Your task to perform on an android device: open app "Nova Launcher" (install if not already installed) and go to login screen Image 0: 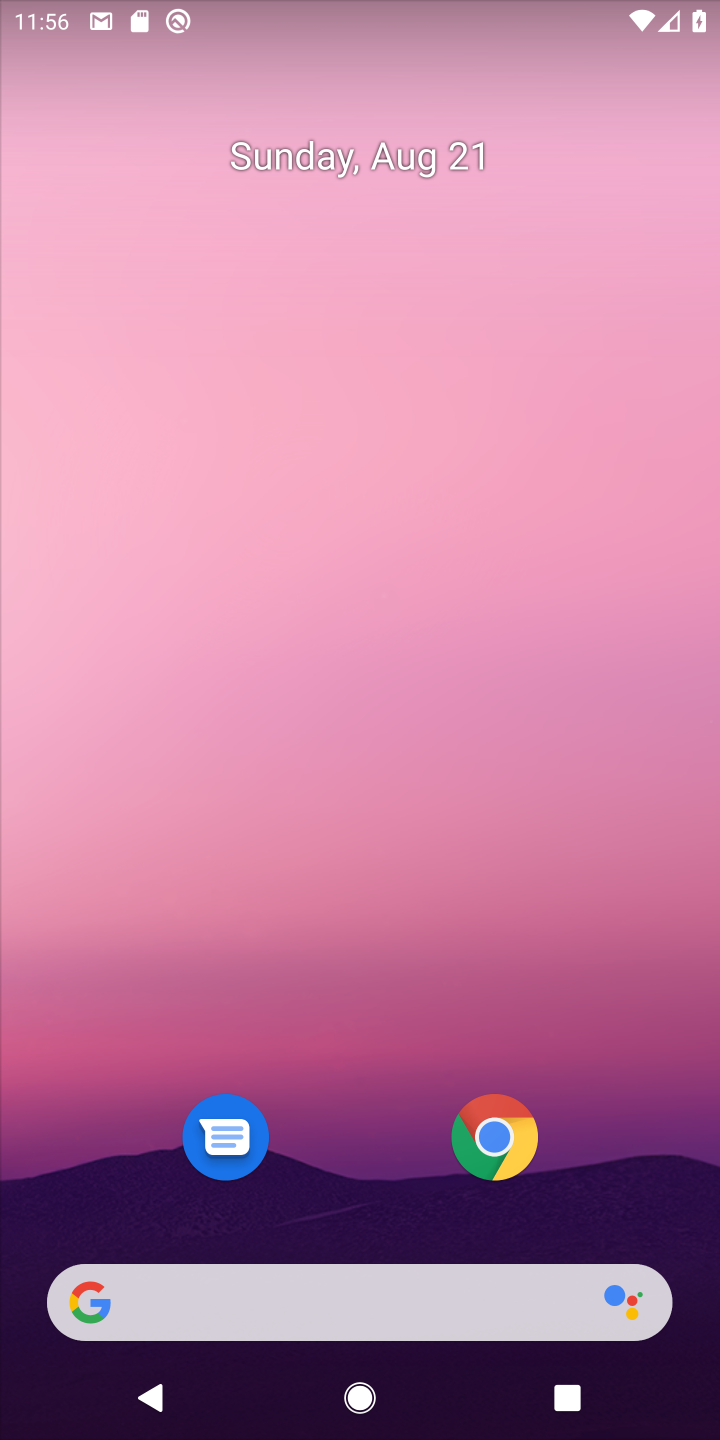
Step 0: drag from (632, 1222) to (560, 142)
Your task to perform on an android device: open app "Nova Launcher" (install if not already installed) and go to login screen Image 1: 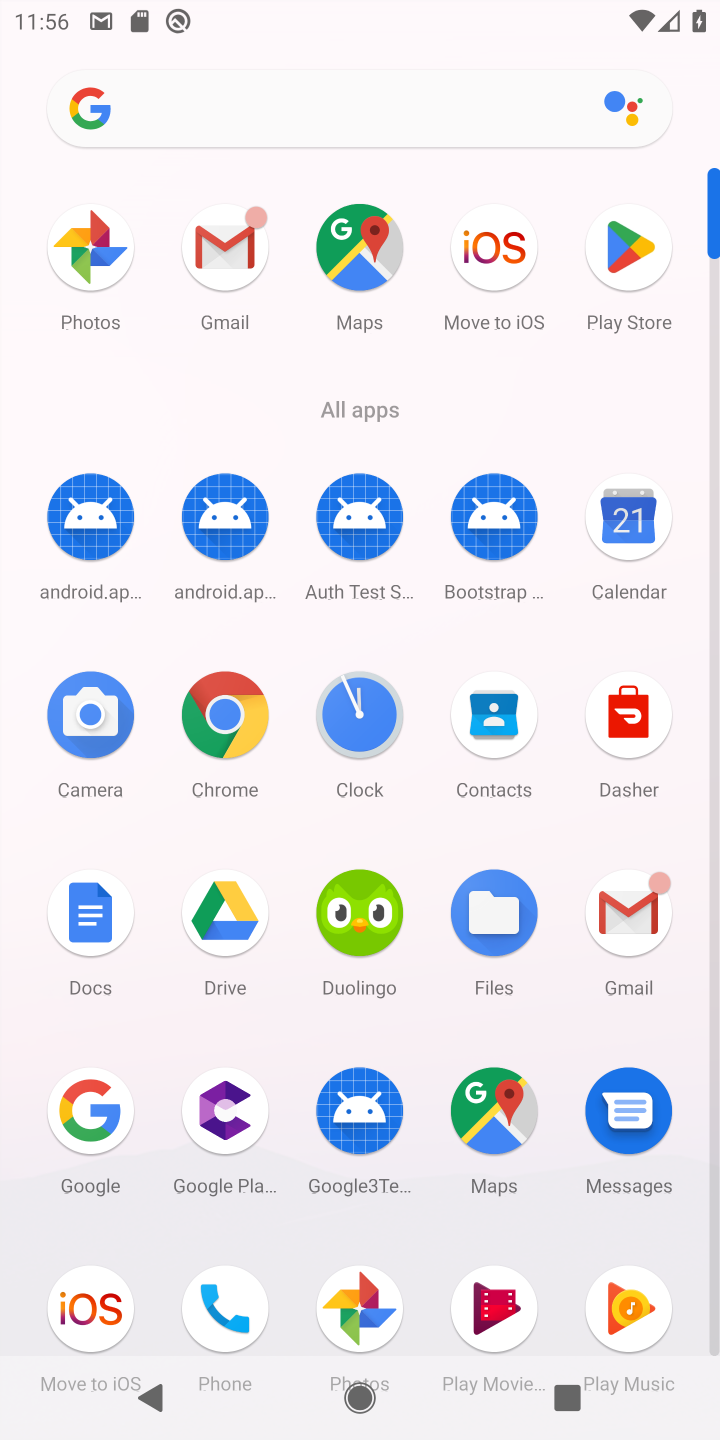
Step 1: drag from (286, 1243) to (270, 500)
Your task to perform on an android device: open app "Nova Launcher" (install if not already installed) and go to login screen Image 2: 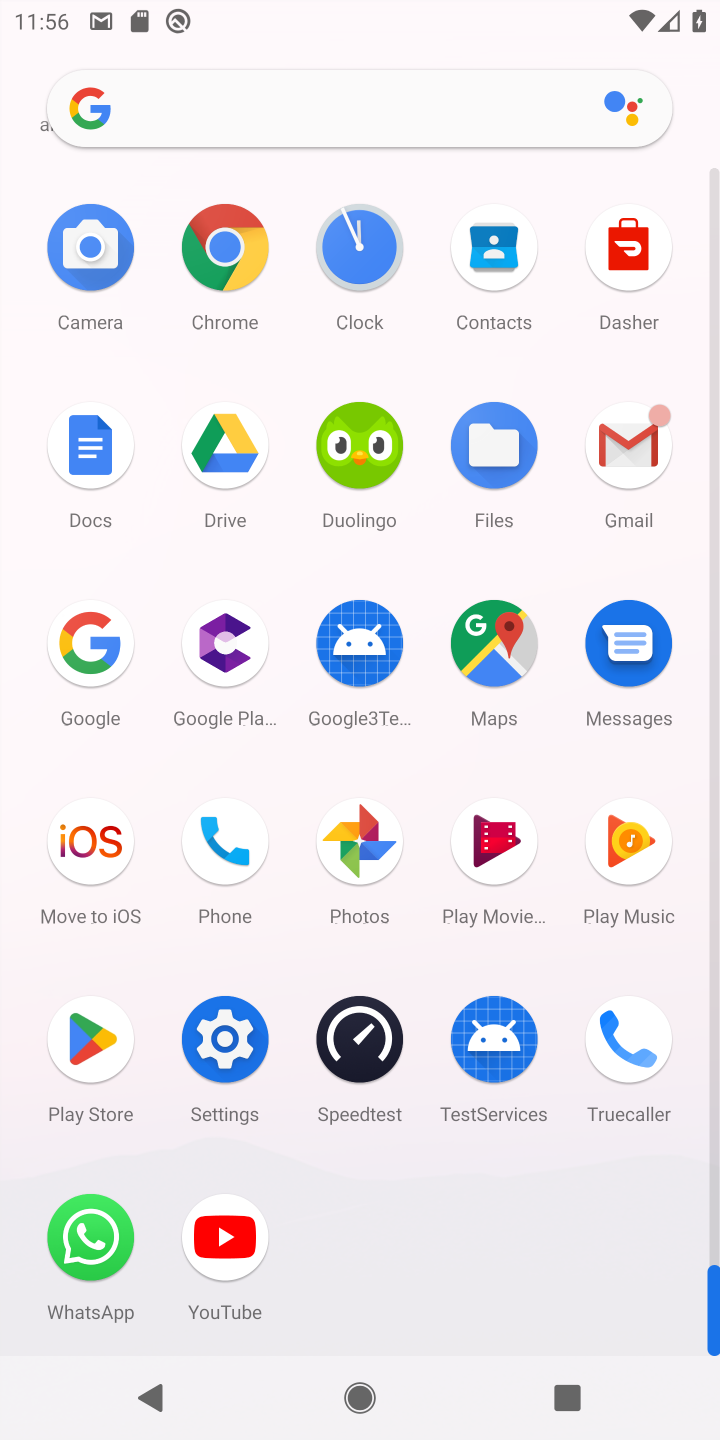
Step 2: click (87, 1043)
Your task to perform on an android device: open app "Nova Launcher" (install if not already installed) and go to login screen Image 3: 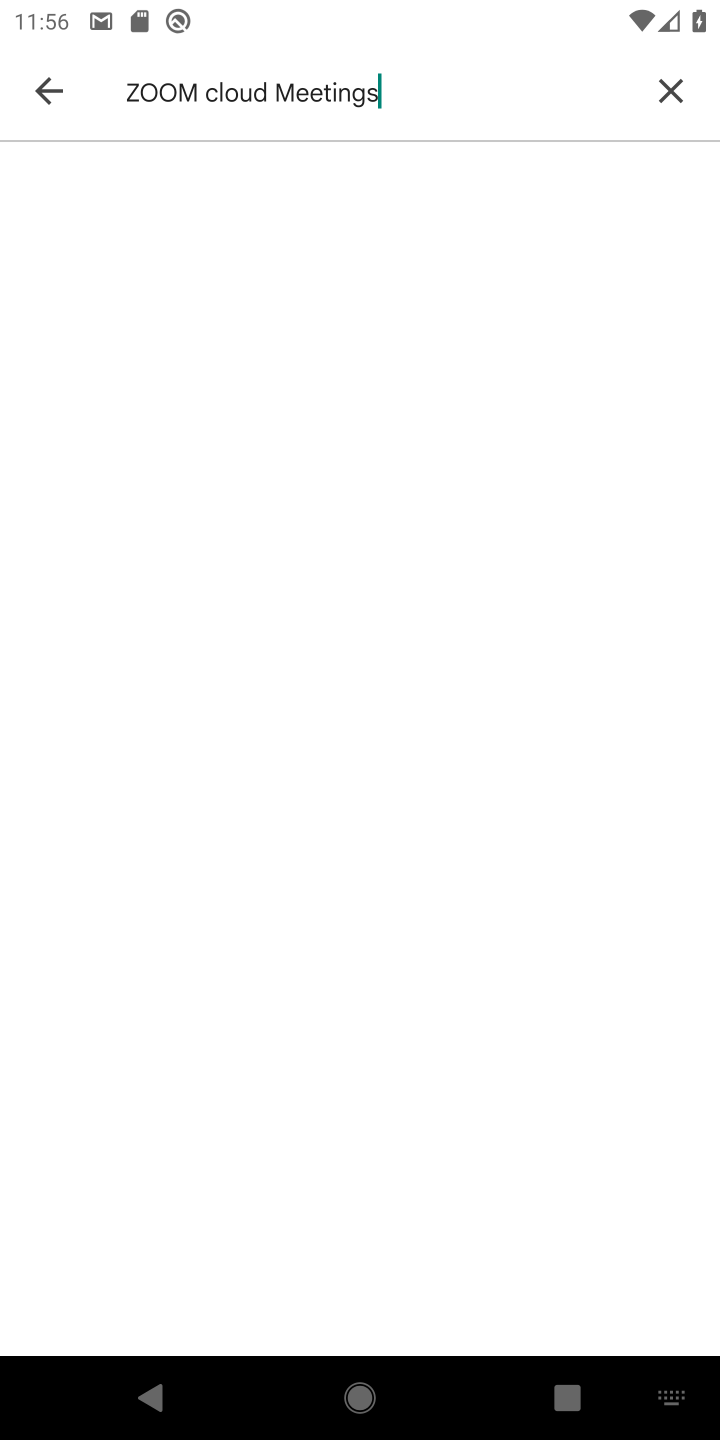
Step 3: click (667, 83)
Your task to perform on an android device: open app "Nova Launcher" (install if not already installed) and go to login screen Image 4: 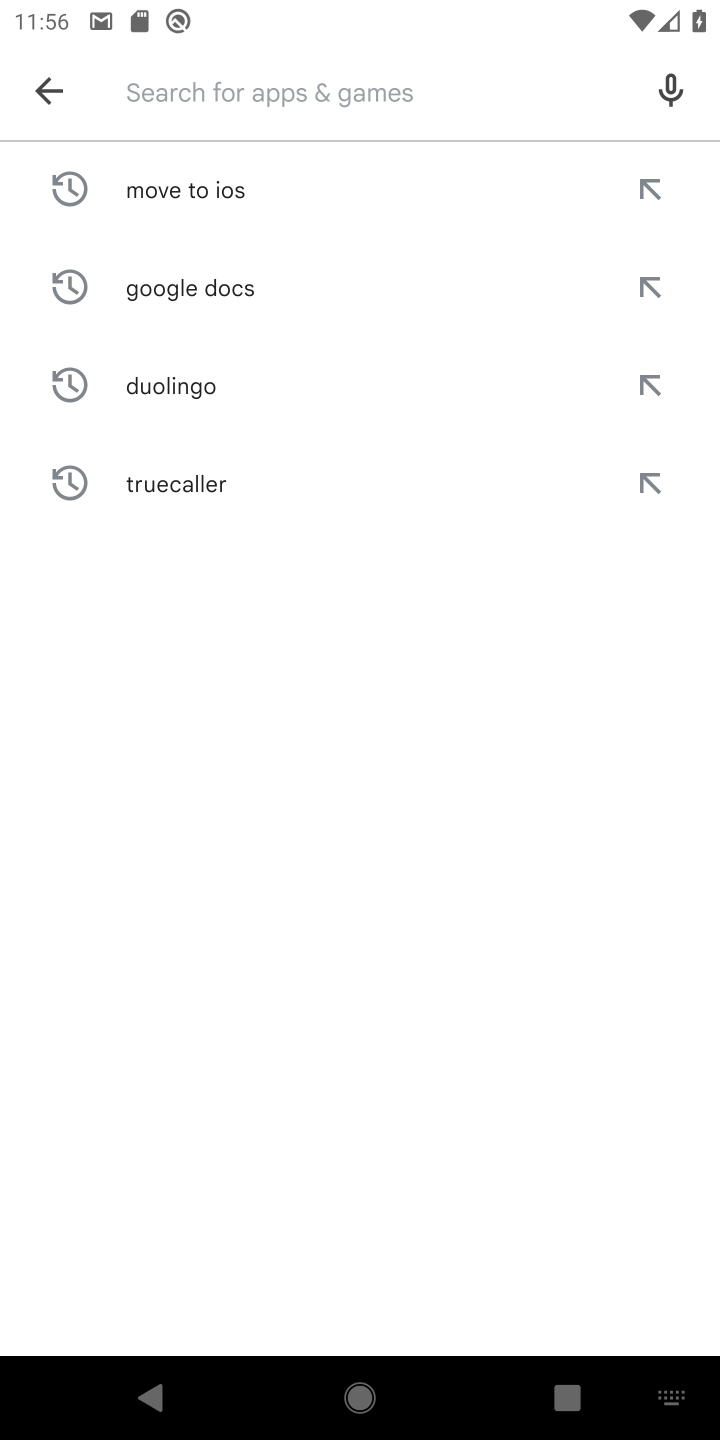
Step 4: press back button
Your task to perform on an android device: open app "Nova Launcher" (install if not already installed) and go to login screen Image 5: 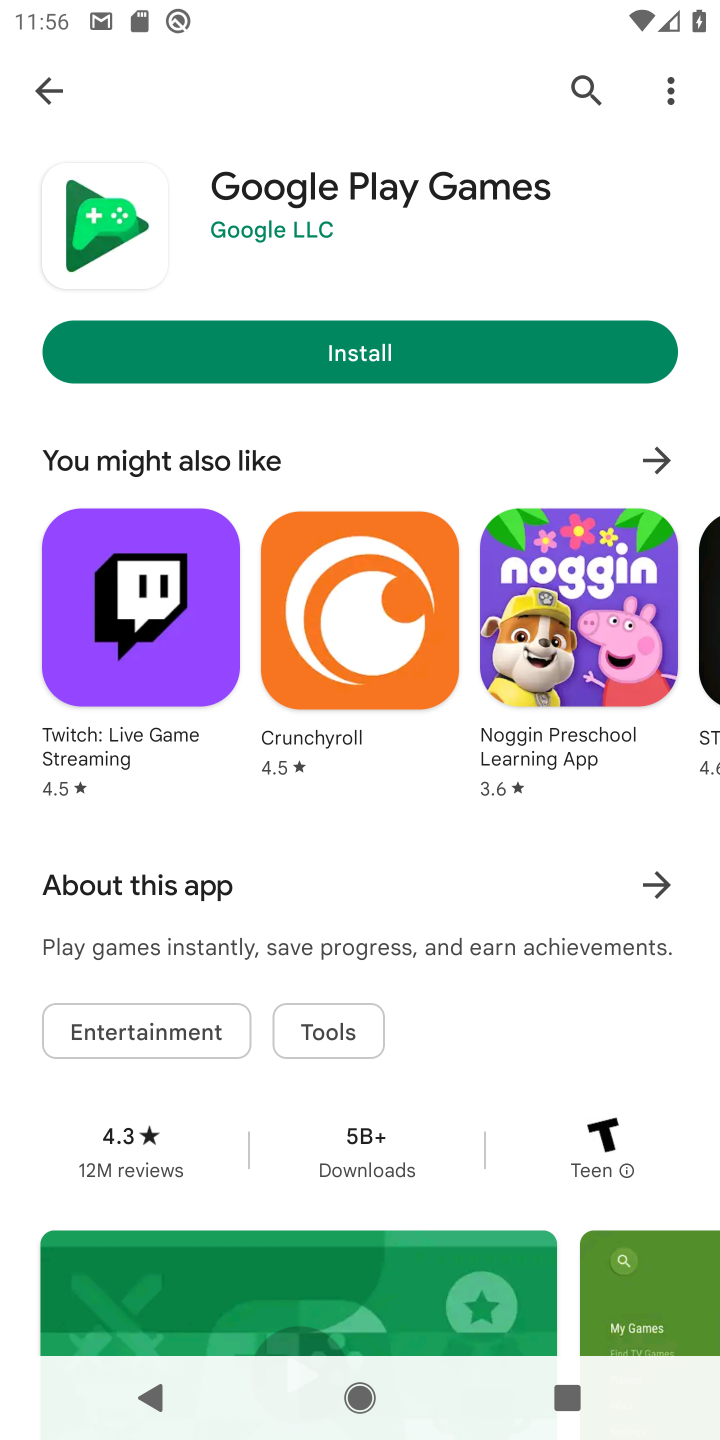
Step 5: press back button
Your task to perform on an android device: open app "Nova Launcher" (install if not already installed) and go to login screen Image 6: 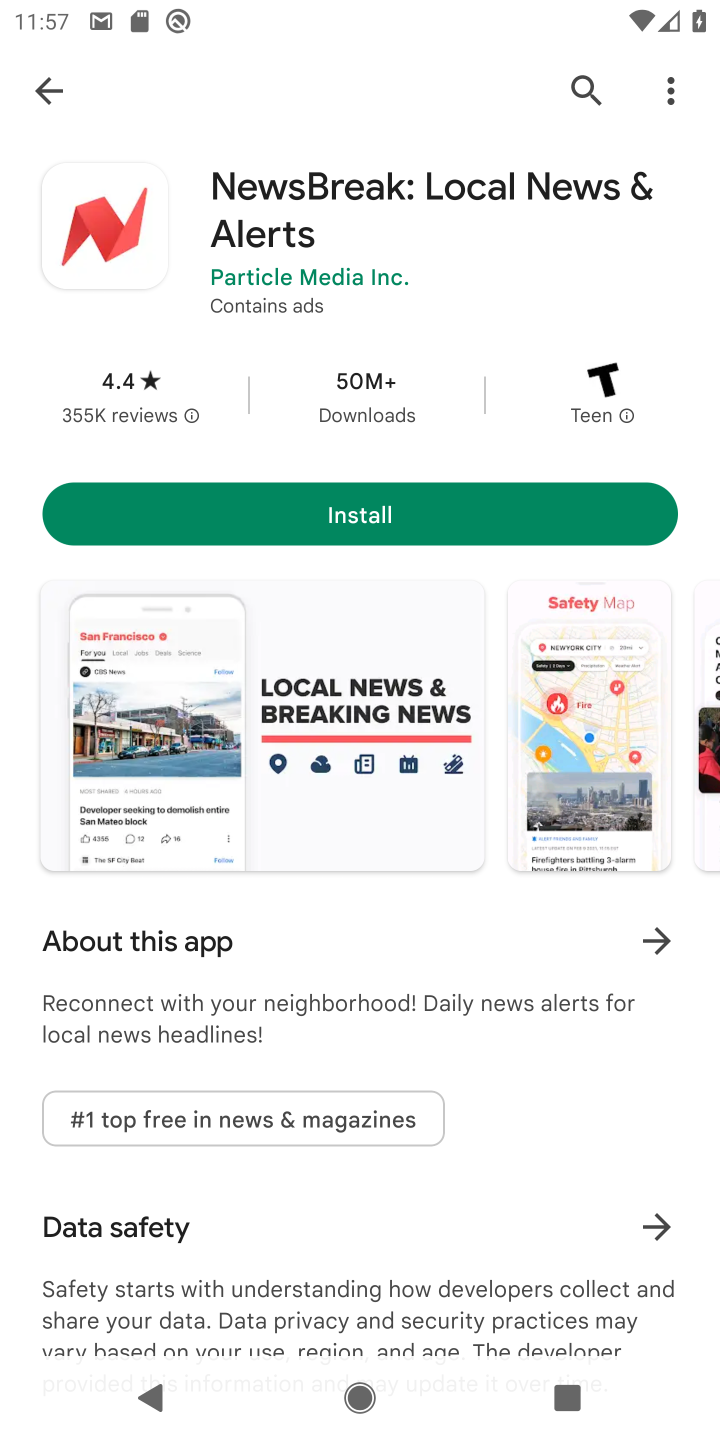
Step 6: press back button
Your task to perform on an android device: open app "Nova Launcher" (install if not already installed) and go to login screen Image 7: 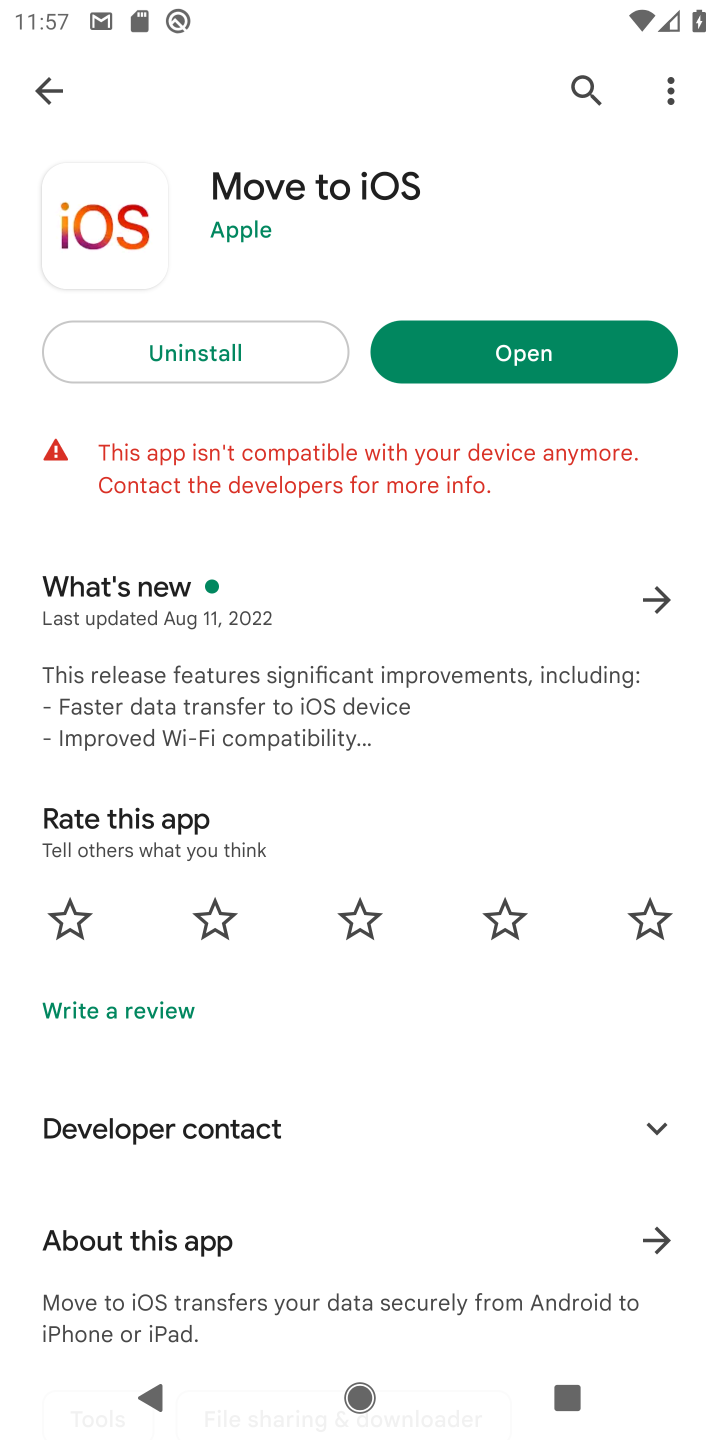
Step 7: click (572, 83)
Your task to perform on an android device: open app "Nova Launcher" (install if not already installed) and go to login screen Image 8: 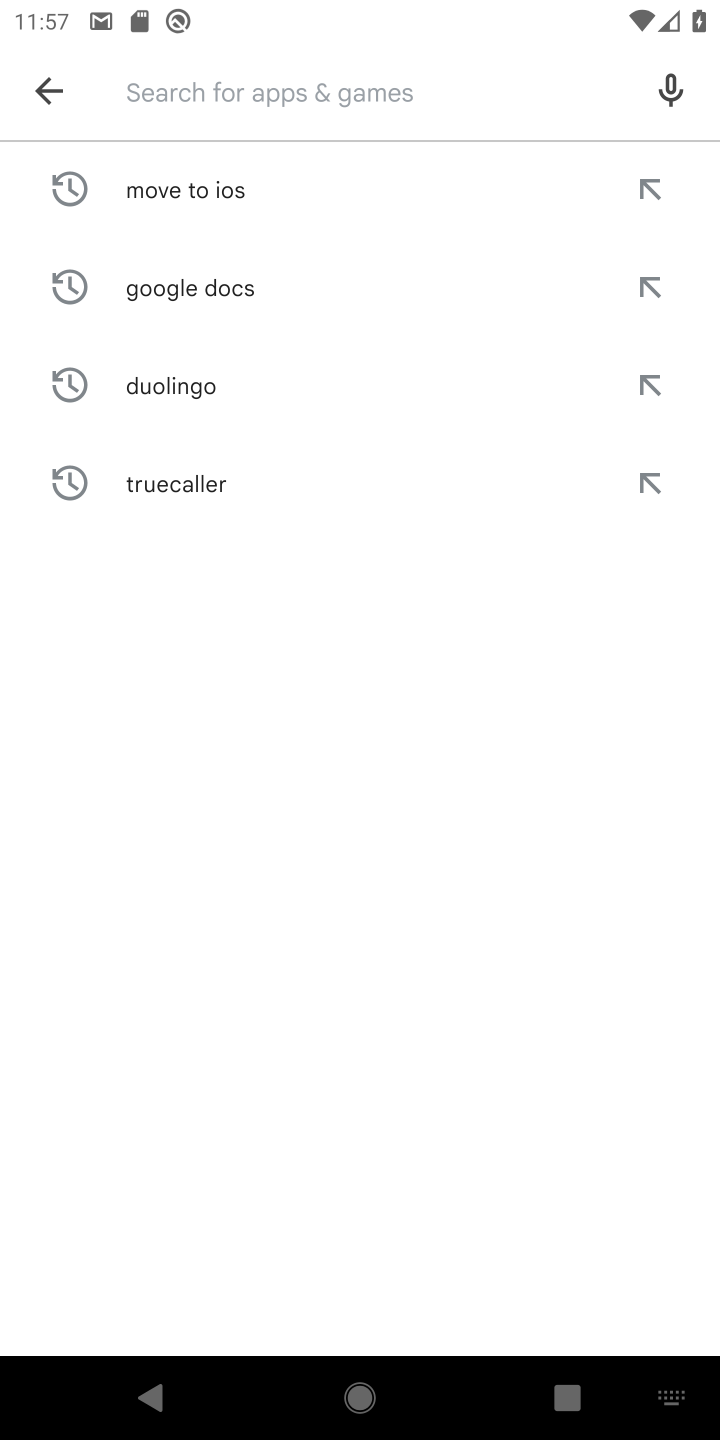
Step 8: type "Nova Launcher"
Your task to perform on an android device: open app "Nova Launcher" (install if not already installed) and go to login screen Image 9: 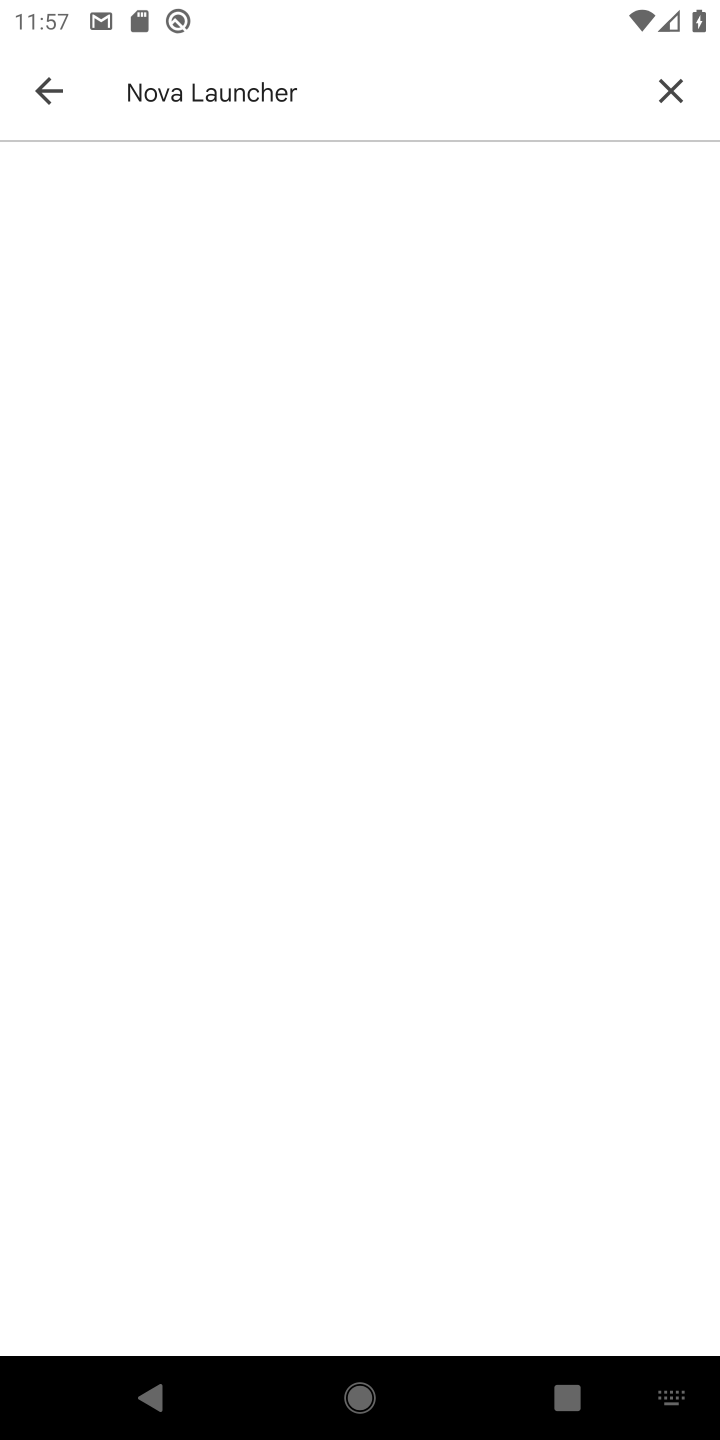
Step 9: task complete